Your task to perform on an android device: allow notifications from all sites in the chrome app Image 0: 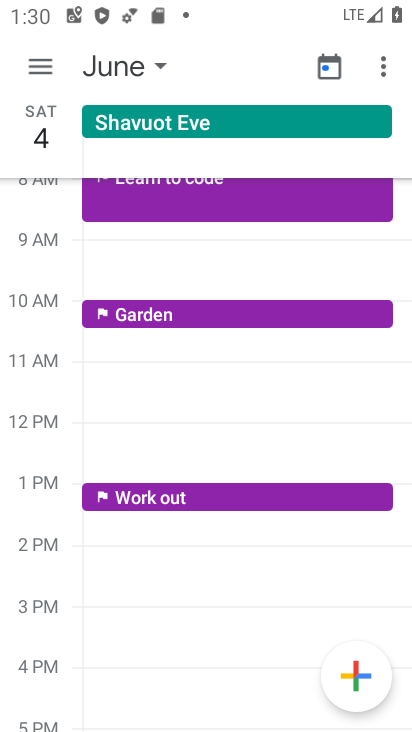
Step 0: press home button
Your task to perform on an android device: allow notifications from all sites in the chrome app Image 1: 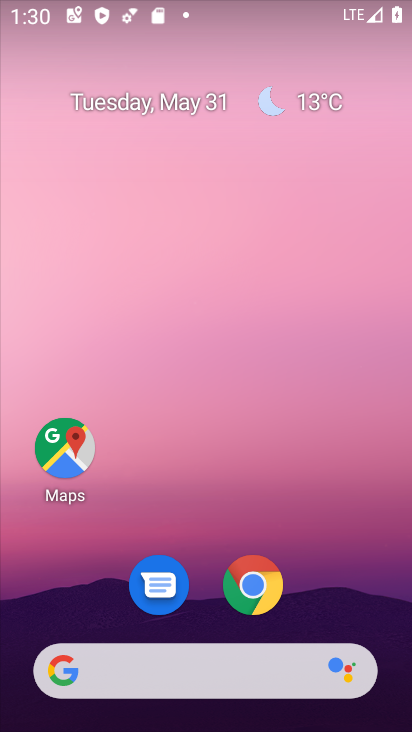
Step 1: click (259, 594)
Your task to perform on an android device: allow notifications from all sites in the chrome app Image 2: 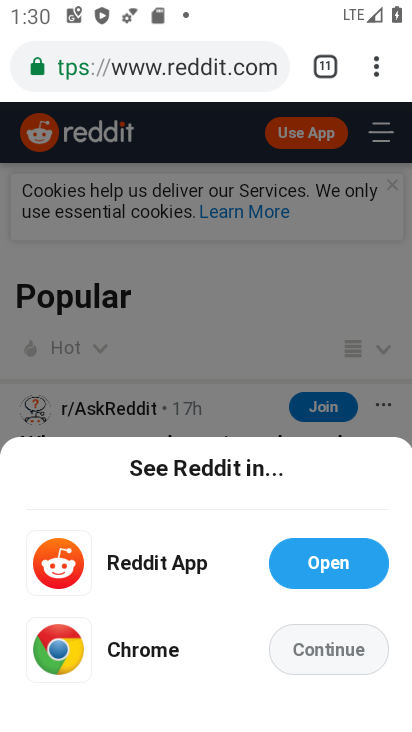
Step 2: click (377, 65)
Your task to perform on an android device: allow notifications from all sites in the chrome app Image 3: 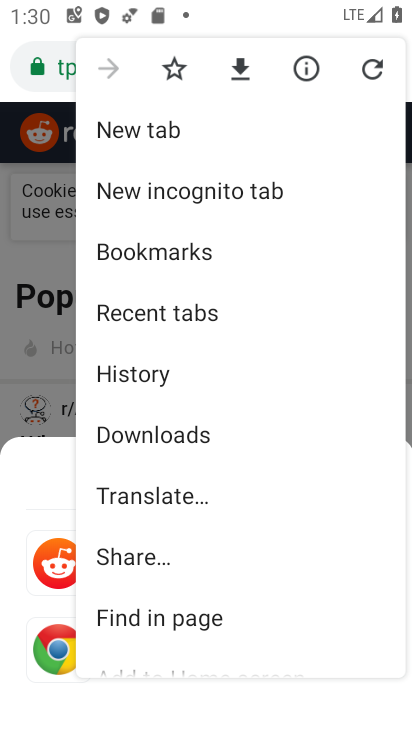
Step 3: drag from (197, 508) to (213, 194)
Your task to perform on an android device: allow notifications from all sites in the chrome app Image 4: 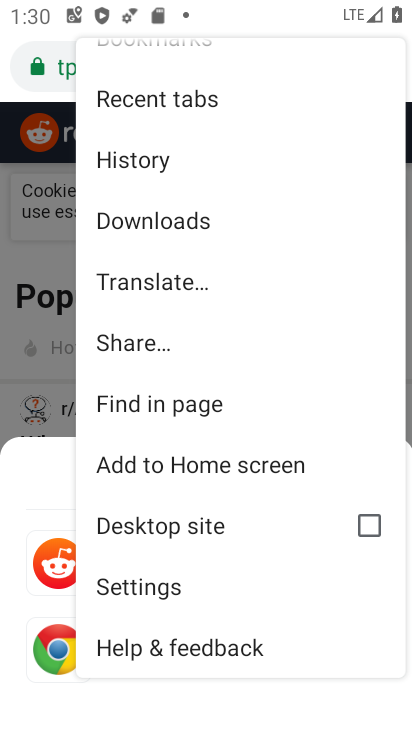
Step 4: click (152, 579)
Your task to perform on an android device: allow notifications from all sites in the chrome app Image 5: 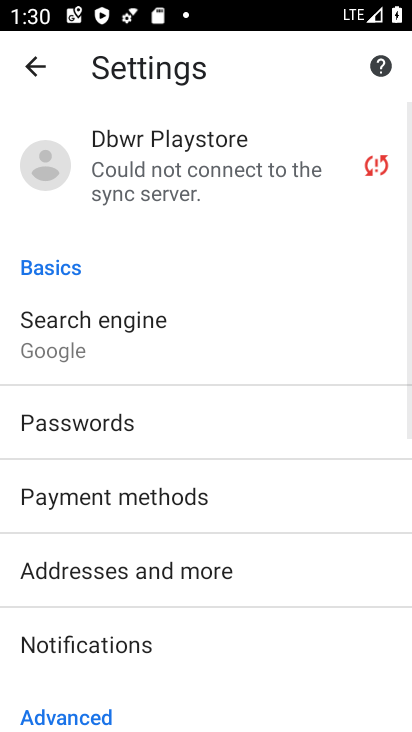
Step 5: drag from (225, 520) to (229, 227)
Your task to perform on an android device: allow notifications from all sites in the chrome app Image 6: 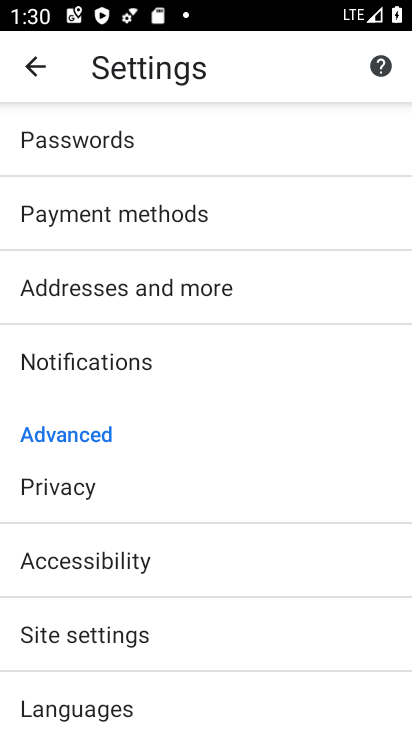
Step 6: click (230, 349)
Your task to perform on an android device: allow notifications from all sites in the chrome app Image 7: 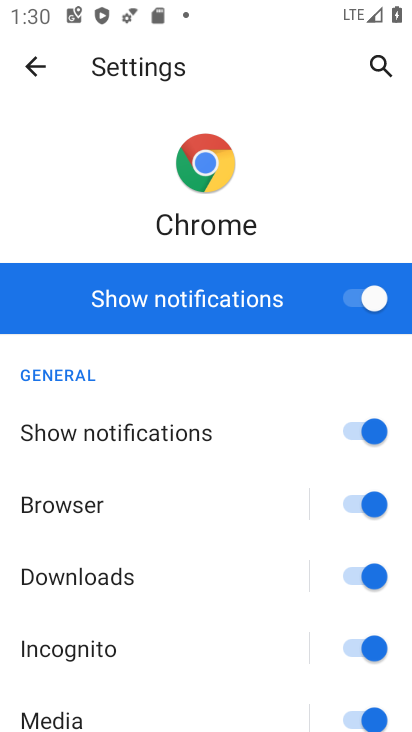
Step 7: task complete